Your task to perform on an android device: Open Google Maps and go to "Timeline" Image 0: 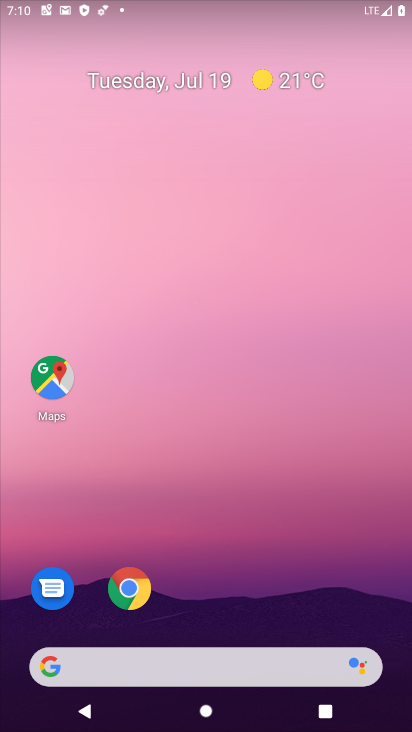
Step 0: drag from (279, 603) to (300, 187)
Your task to perform on an android device: Open Google Maps and go to "Timeline" Image 1: 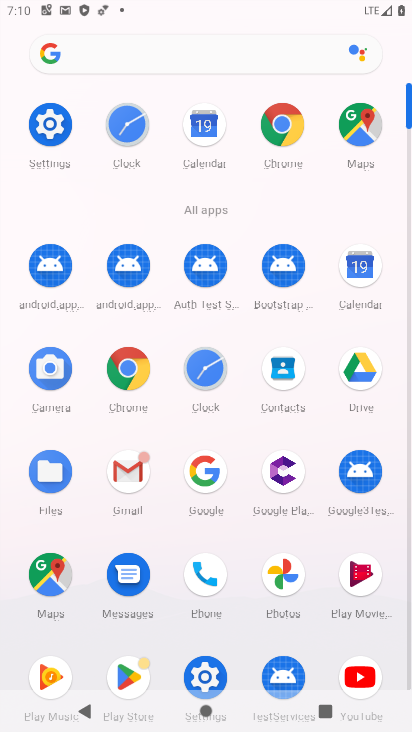
Step 1: click (29, 588)
Your task to perform on an android device: Open Google Maps and go to "Timeline" Image 2: 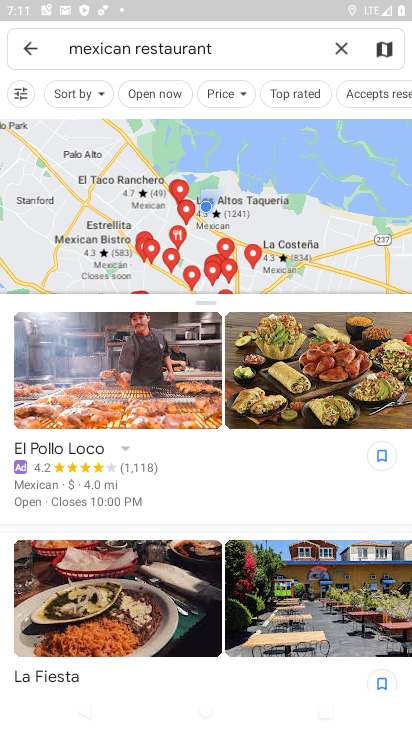
Step 2: press back button
Your task to perform on an android device: Open Google Maps and go to "Timeline" Image 3: 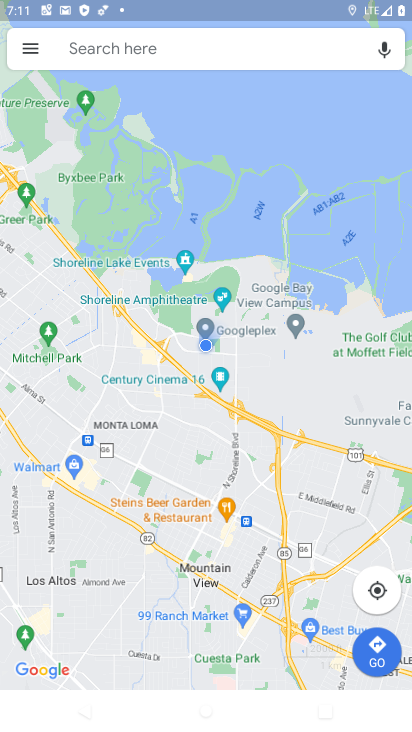
Step 3: click (36, 54)
Your task to perform on an android device: Open Google Maps and go to "Timeline" Image 4: 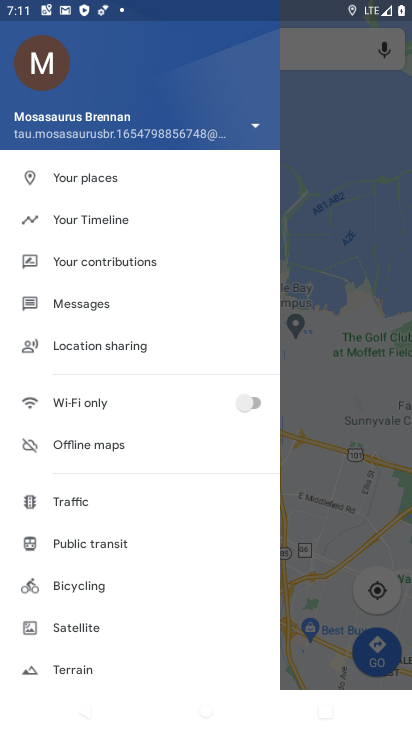
Step 4: click (142, 224)
Your task to perform on an android device: Open Google Maps and go to "Timeline" Image 5: 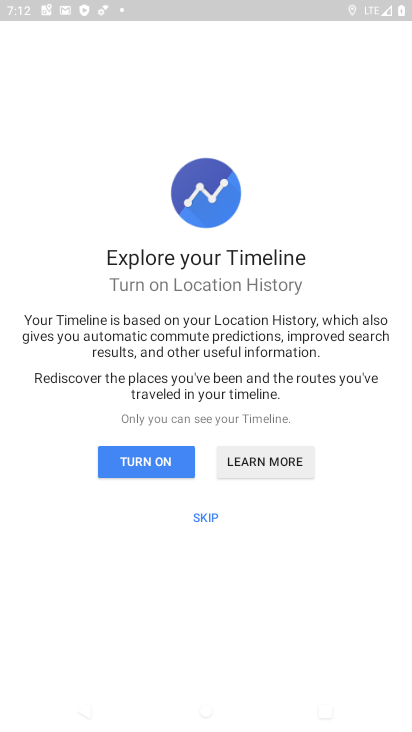
Step 5: click (214, 517)
Your task to perform on an android device: Open Google Maps and go to "Timeline" Image 6: 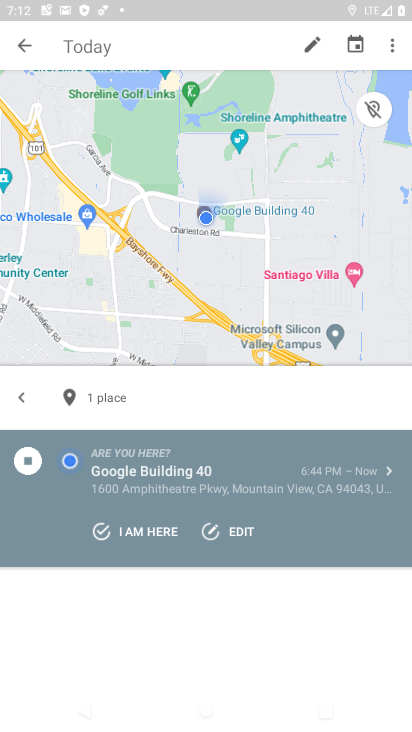
Step 6: task complete